Your task to perform on an android device: Do I have any events tomorrow? Image 0: 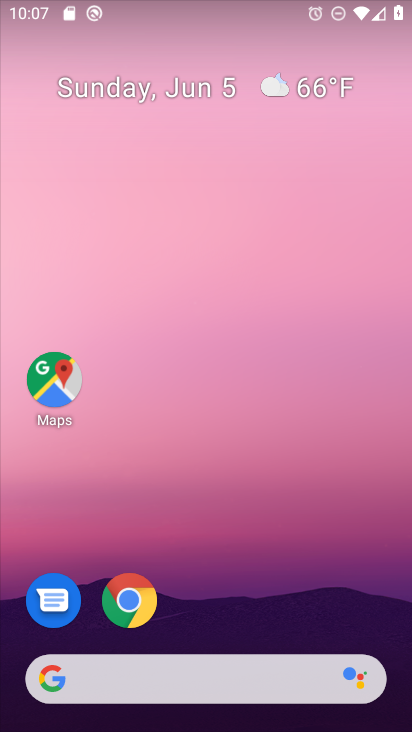
Step 0: drag from (400, 638) to (337, 46)
Your task to perform on an android device: Do I have any events tomorrow? Image 1: 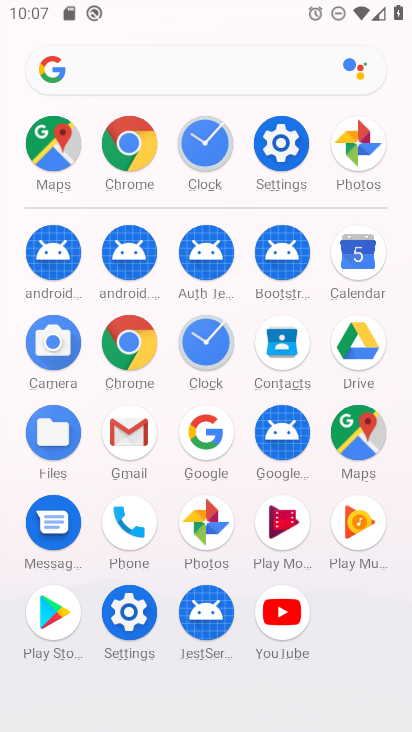
Step 1: click (343, 269)
Your task to perform on an android device: Do I have any events tomorrow? Image 2: 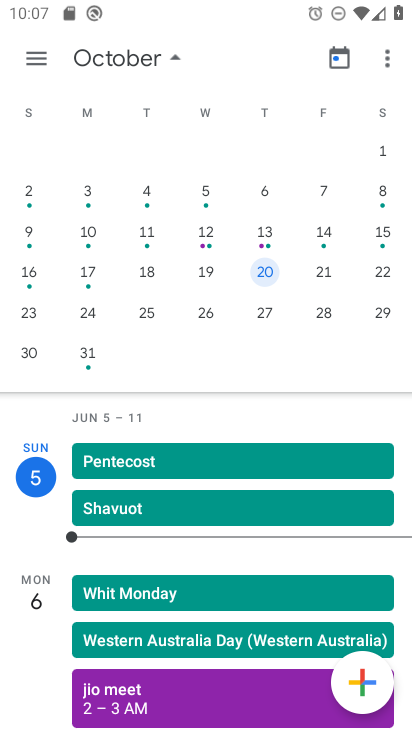
Step 2: task complete